Your task to perform on an android device: turn on airplane mode Image 0: 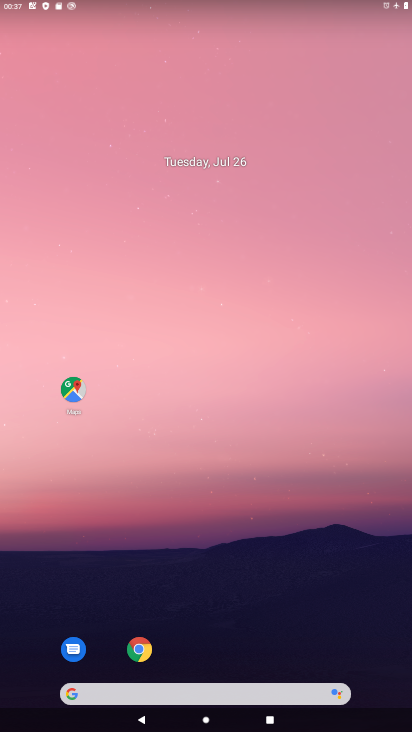
Step 0: drag from (231, 725) to (210, 95)
Your task to perform on an android device: turn on airplane mode Image 1: 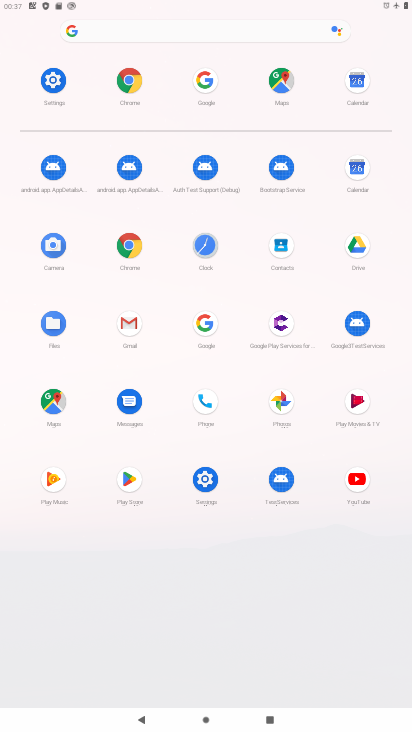
Step 1: click (51, 86)
Your task to perform on an android device: turn on airplane mode Image 2: 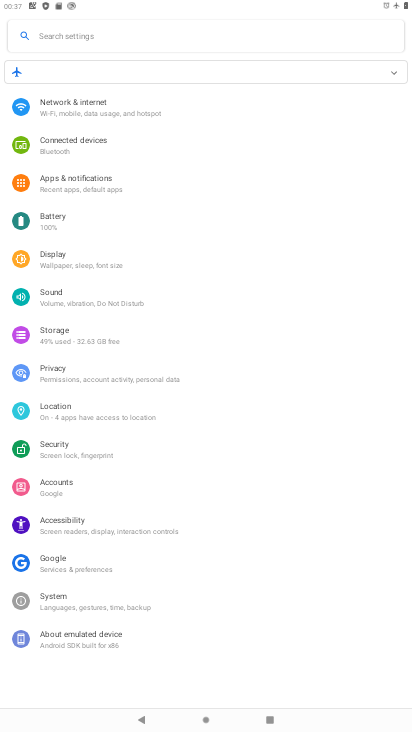
Step 2: click (72, 102)
Your task to perform on an android device: turn on airplane mode Image 3: 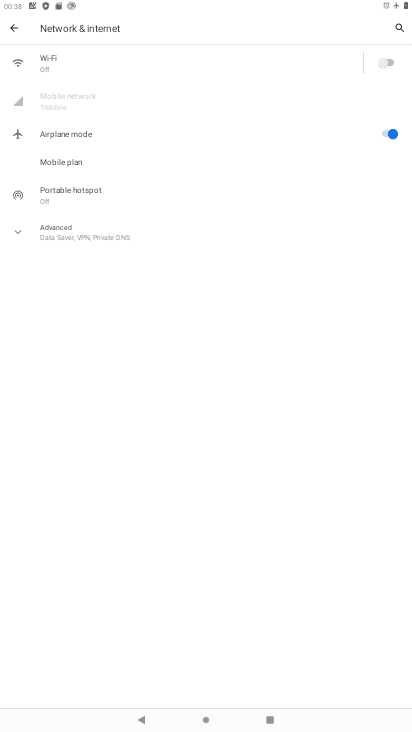
Step 3: task complete